Your task to perform on an android device: turn vacation reply on in the gmail app Image 0: 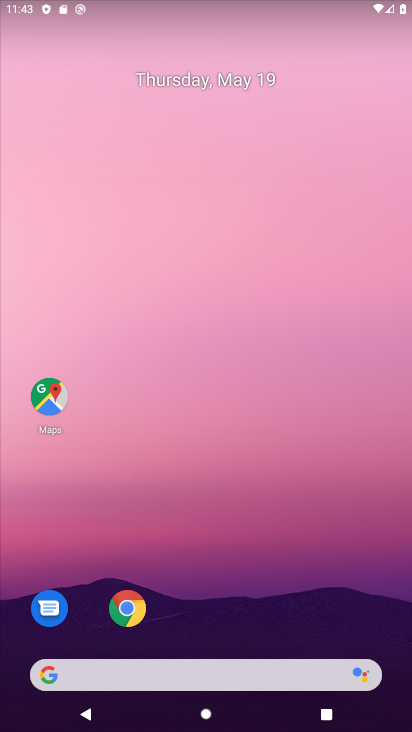
Step 0: drag from (386, 609) to (379, 219)
Your task to perform on an android device: turn vacation reply on in the gmail app Image 1: 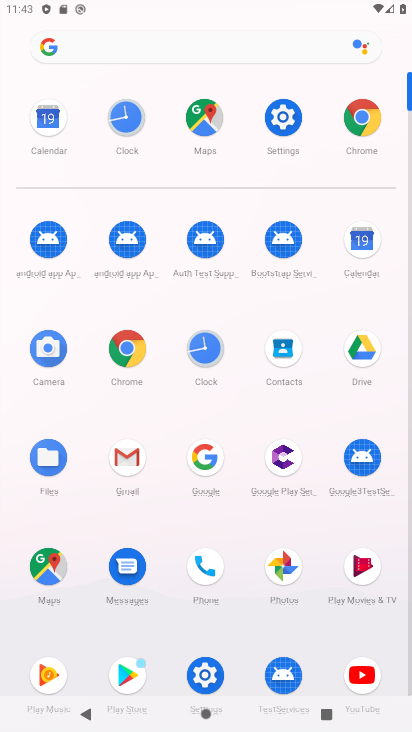
Step 1: click (124, 460)
Your task to perform on an android device: turn vacation reply on in the gmail app Image 2: 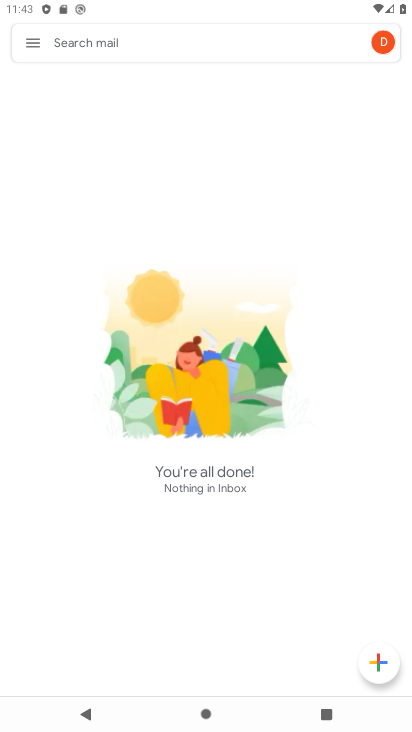
Step 2: click (37, 41)
Your task to perform on an android device: turn vacation reply on in the gmail app Image 3: 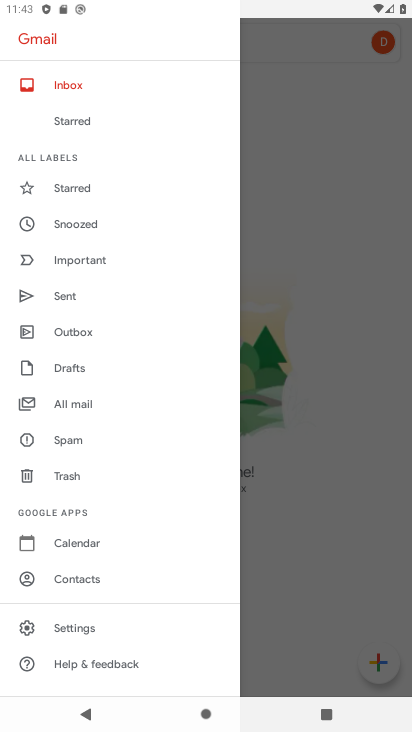
Step 3: drag from (164, 453) to (162, 306)
Your task to perform on an android device: turn vacation reply on in the gmail app Image 4: 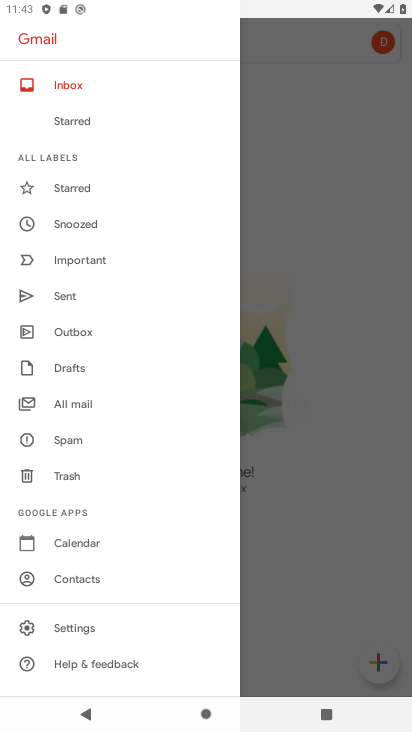
Step 4: click (107, 615)
Your task to perform on an android device: turn vacation reply on in the gmail app Image 5: 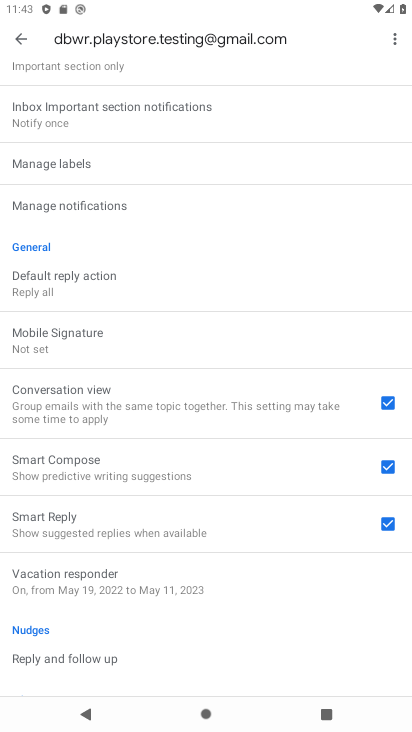
Step 5: drag from (219, 585) to (226, 489)
Your task to perform on an android device: turn vacation reply on in the gmail app Image 6: 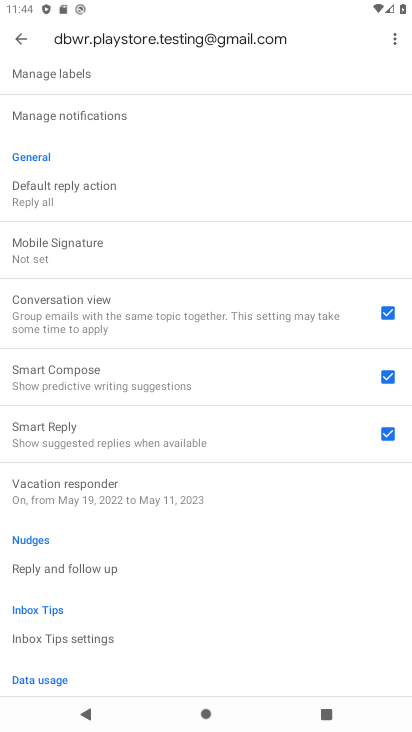
Step 6: drag from (223, 587) to (229, 427)
Your task to perform on an android device: turn vacation reply on in the gmail app Image 7: 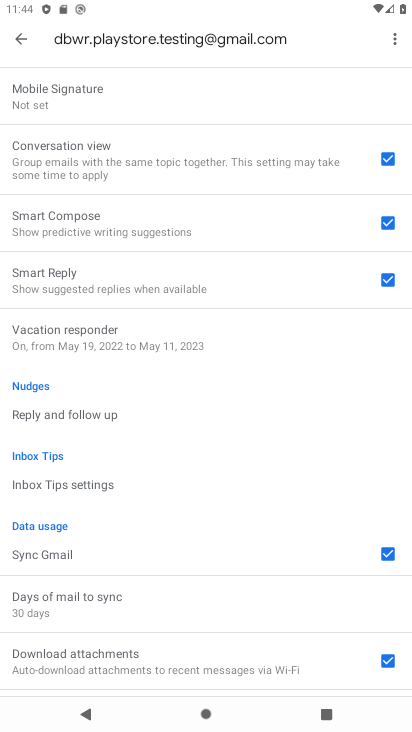
Step 7: drag from (239, 616) to (239, 499)
Your task to perform on an android device: turn vacation reply on in the gmail app Image 8: 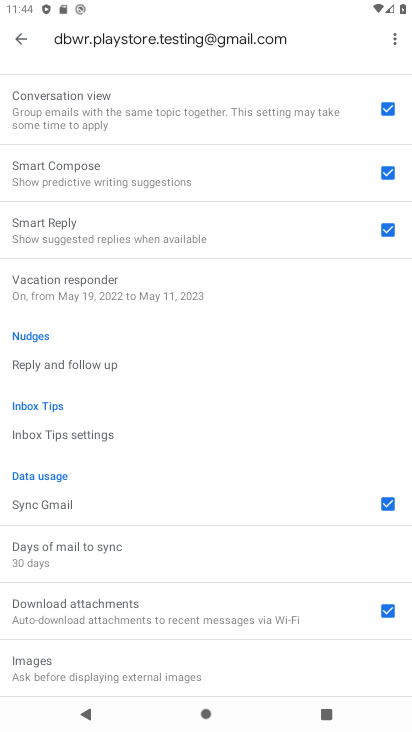
Step 8: click (188, 293)
Your task to perform on an android device: turn vacation reply on in the gmail app Image 9: 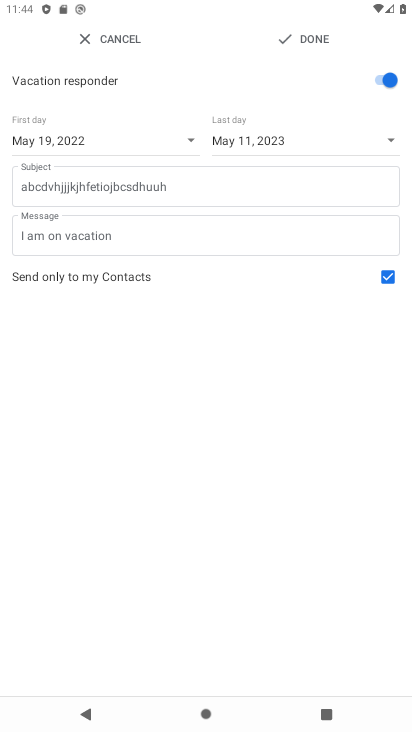
Step 9: task complete